Your task to perform on an android device: Go to wifi settings Image 0: 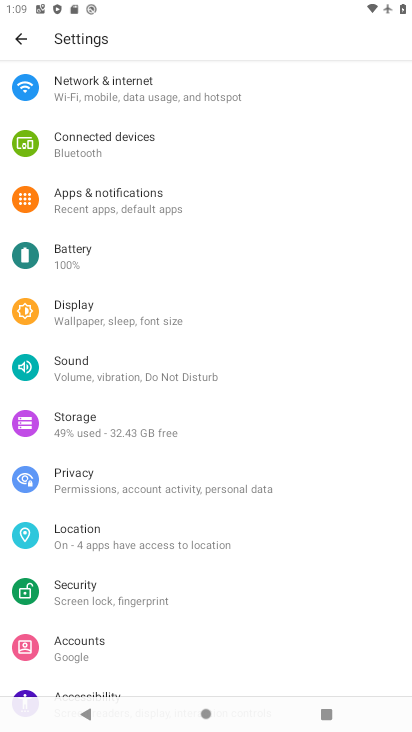
Step 0: press home button
Your task to perform on an android device: Go to wifi settings Image 1: 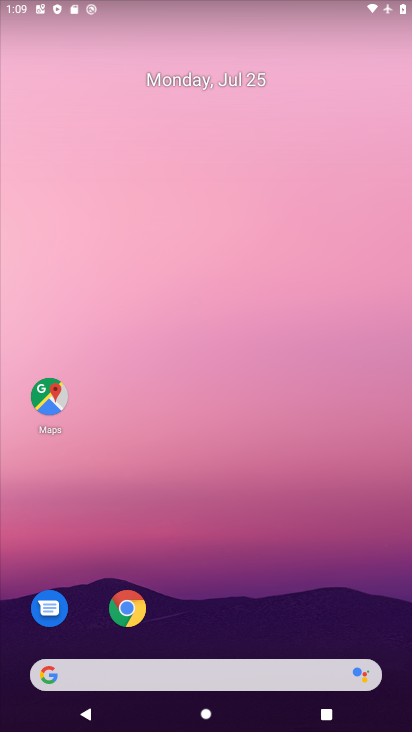
Step 1: drag from (212, 697) to (241, 314)
Your task to perform on an android device: Go to wifi settings Image 2: 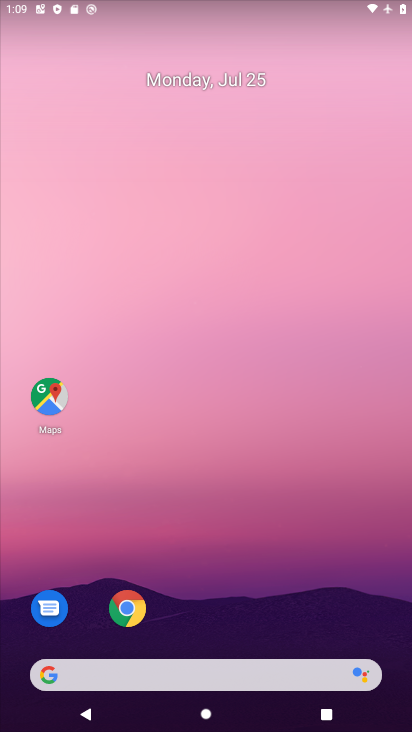
Step 2: drag from (159, 690) to (232, 218)
Your task to perform on an android device: Go to wifi settings Image 3: 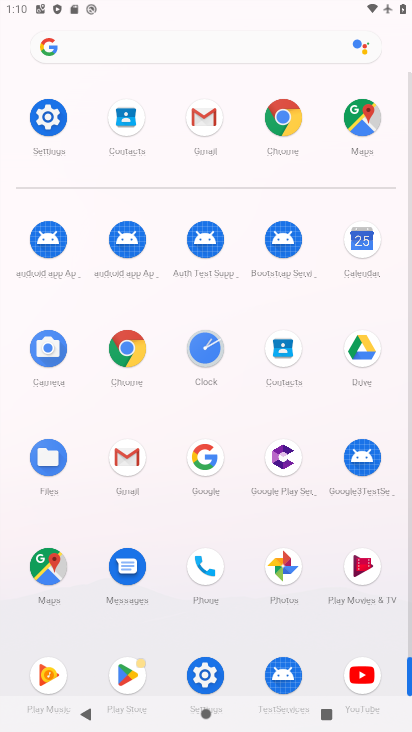
Step 3: click (44, 121)
Your task to perform on an android device: Go to wifi settings Image 4: 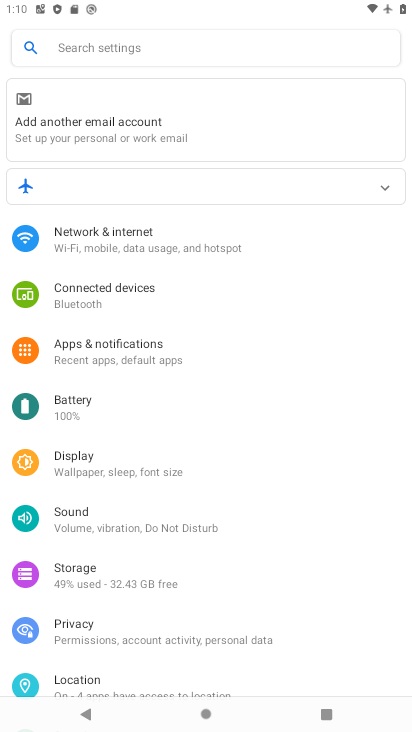
Step 4: click (123, 247)
Your task to perform on an android device: Go to wifi settings Image 5: 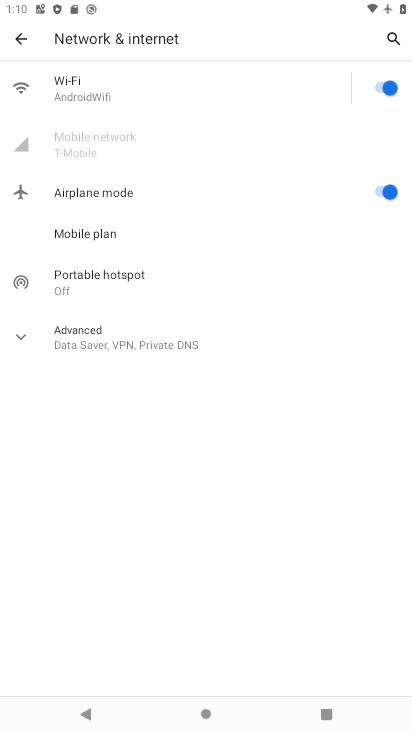
Step 5: click (129, 85)
Your task to perform on an android device: Go to wifi settings Image 6: 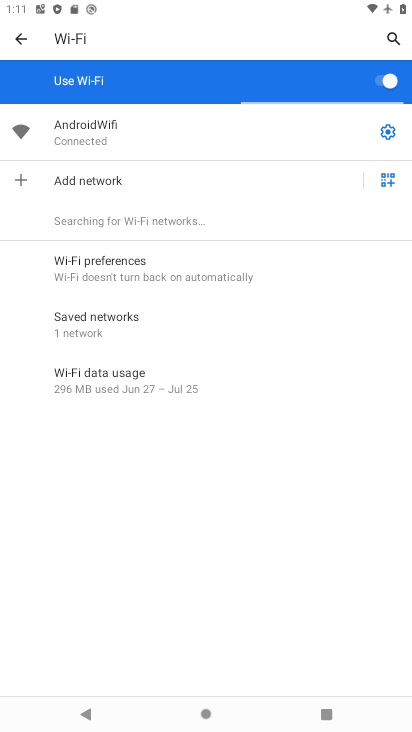
Step 6: task complete